Your task to perform on an android device: Go to location settings Image 0: 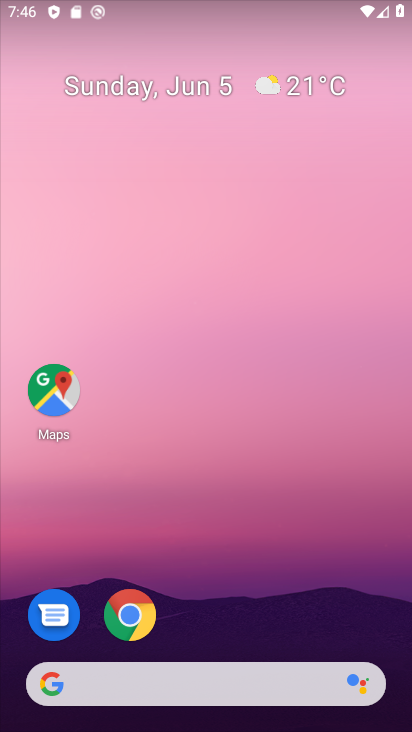
Step 0: drag from (197, 611) to (207, 77)
Your task to perform on an android device: Go to location settings Image 1: 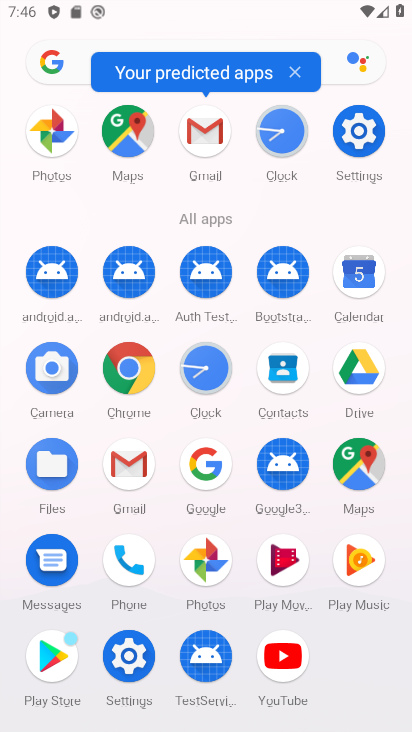
Step 1: click (127, 660)
Your task to perform on an android device: Go to location settings Image 2: 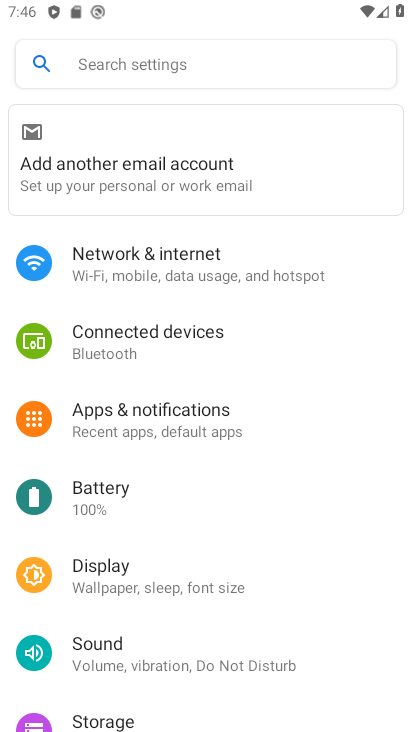
Step 2: drag from (158, 694) to (156, 459)
Your task to perform on an android device: Go to location settings Image 3: 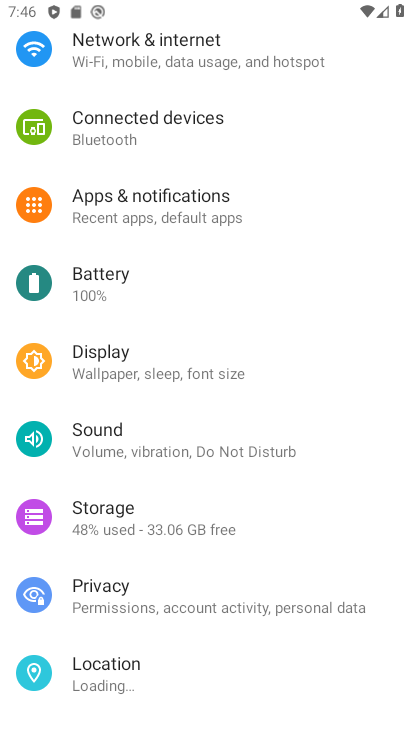
Step 3: click (125, 679)
Your task to perform on an android device: Go to location settings Image 4: 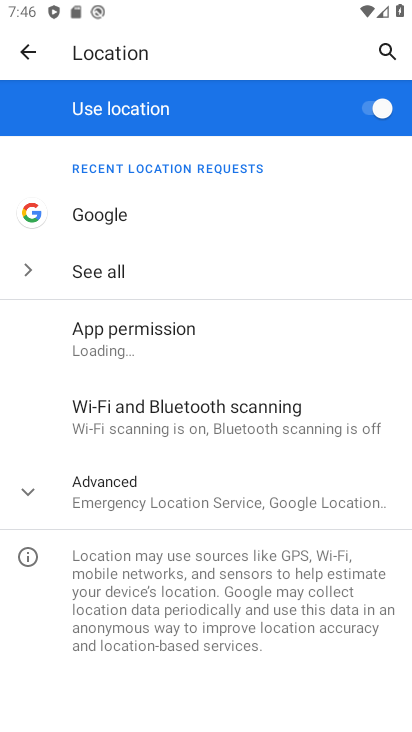
Step 4: task complete